Your task to perform on an android device: turn on the 24-hour format for clock Image 0: 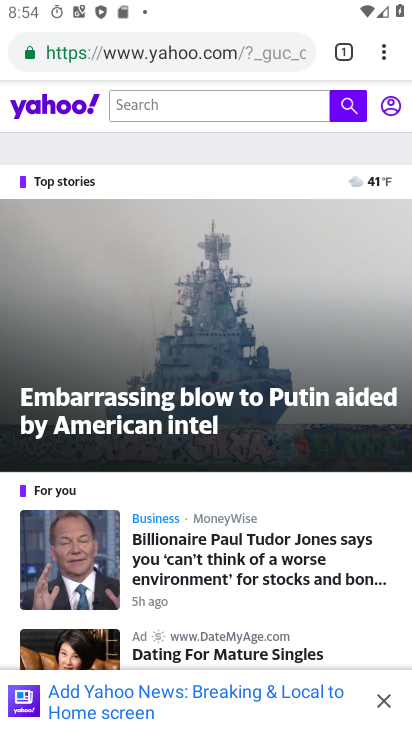
Step 0: press home button
Your task to perform on an android device: turn on the 24-hour format for clock Image 1: 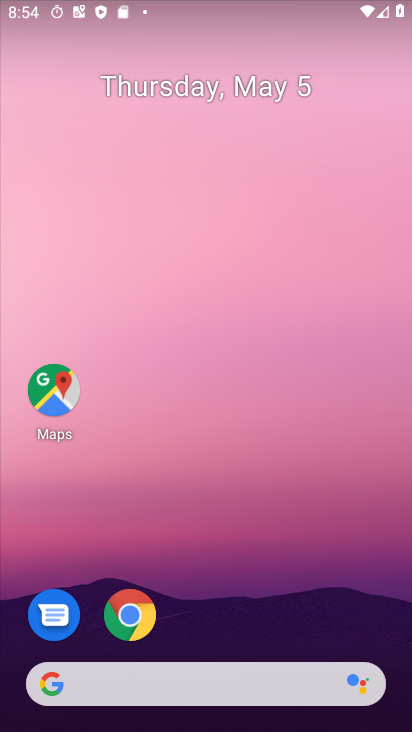
Step 1: drag from (201, 629) to (200, 1)
Your task to perform on an android device: turn on the 24-hour format for clock Image 2: 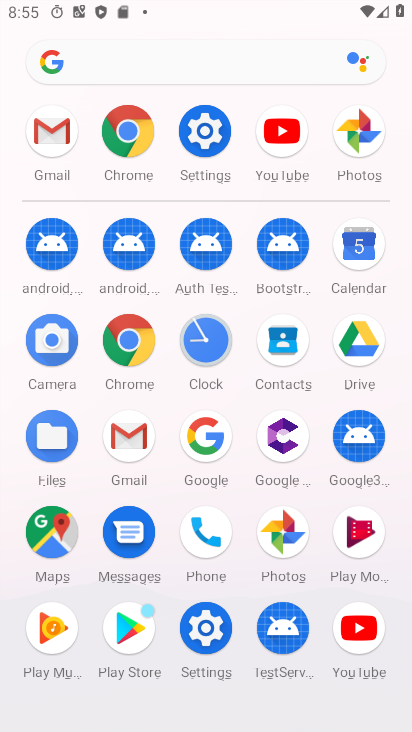
Step 2: click (203, 642)
Your task to perform on an android device: turn on the 24-hour format for clock Image 3: 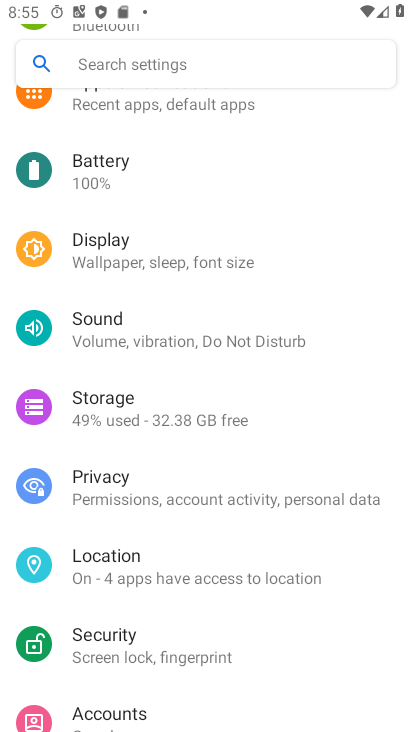
Step 3: drag from (162, 642) to (176, 286)
Your task to perform on an android device: turn on the 24-hour format for clock Image 4: 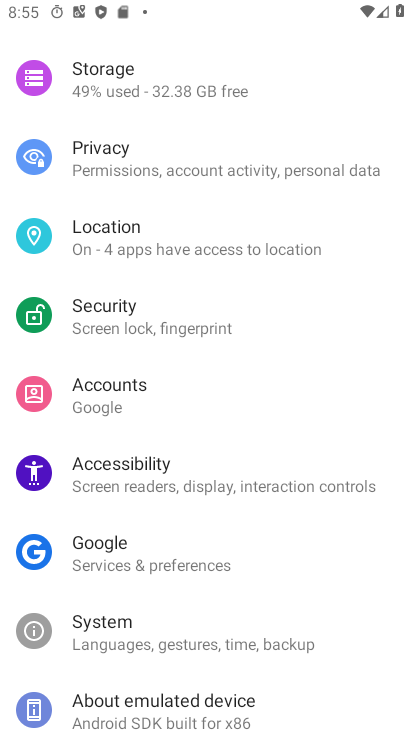
Step 4: click (145, 620)
Your task to perform on an android device: turn on the 24-hour format for clock Image 5: 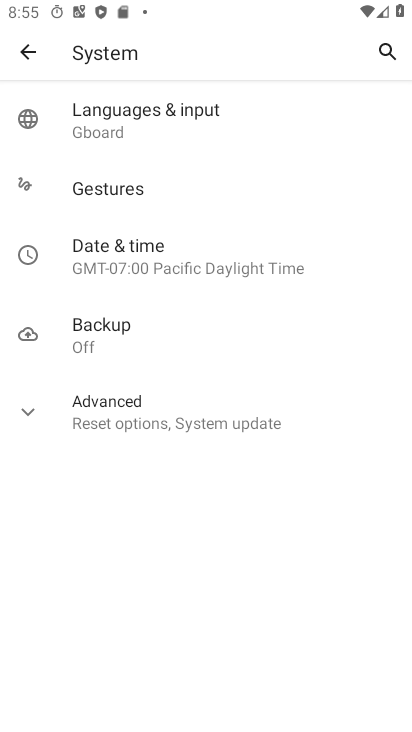
Step 5: click (124, 278)
Your task to perform on an android device: turn on the 24-hour format for clock Image 6: 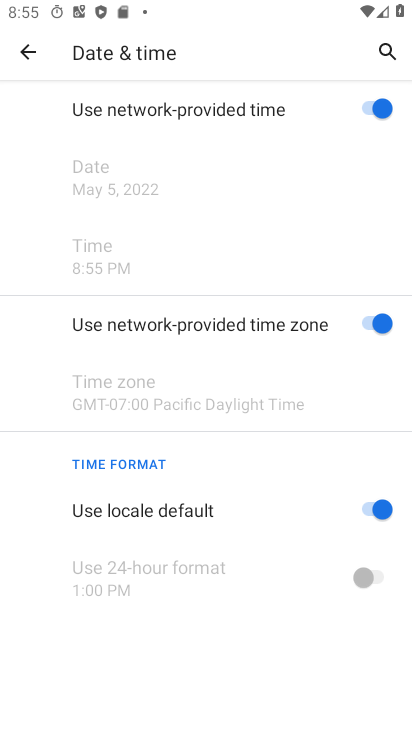
Step 6: click (360, 575)
Your task to perform on an android device: turn on the 24-hour format for clock Image 7: 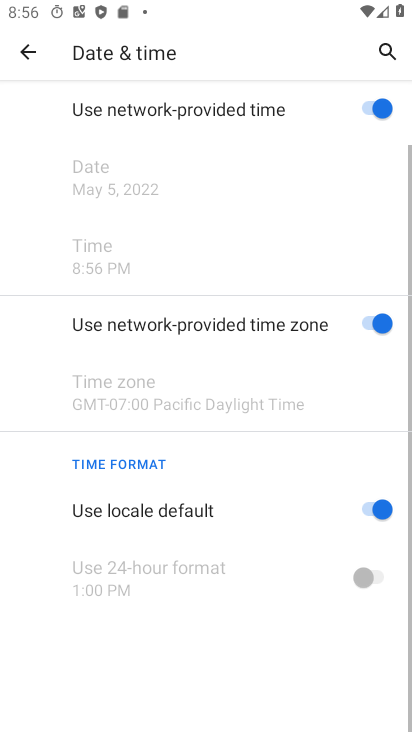
Step 7: click (370, 506)
Your task to perform on an android device: turn on the 24-hour format for clock Image 8: 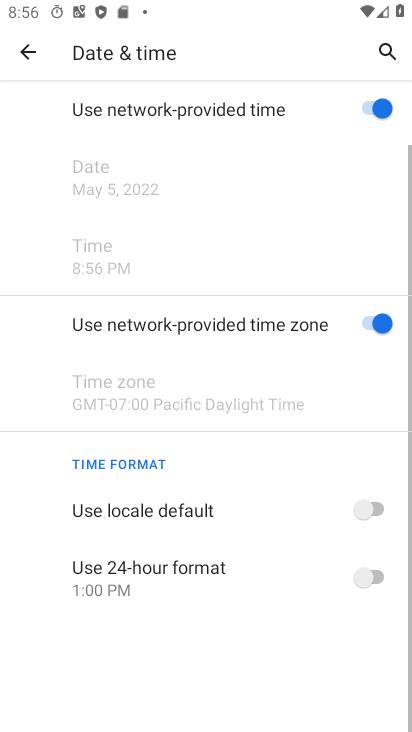
Step 8: click (382, 572)
Your task to perform on an android device: turn on the 24-hour format for clock Image 9: 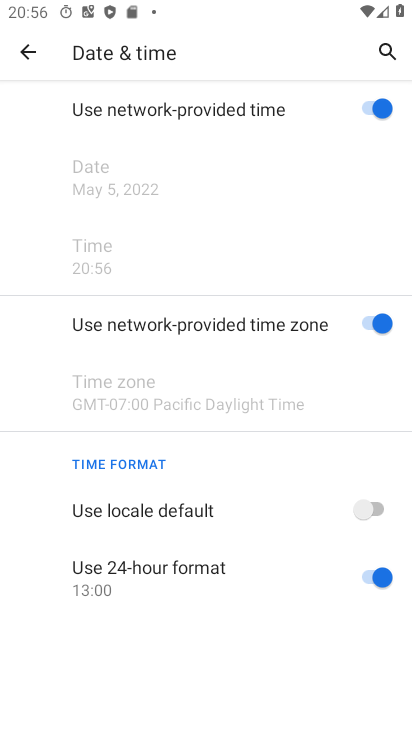
Step 9: task complete